Your task to perform on an android device: check google app version Image 0: 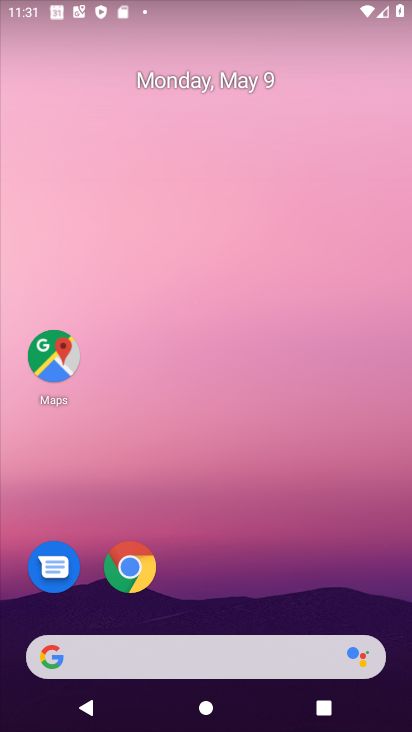
Step 0: drag from (392, 646) to (295, 104)
Your task to perform on an android device: check google app version Image 1: 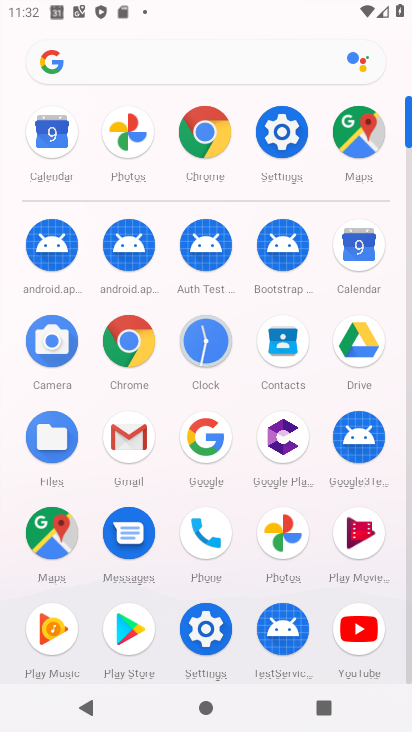
Step 1: click (209, 456)
Your task to perform on an android device: check google app version Image 2: 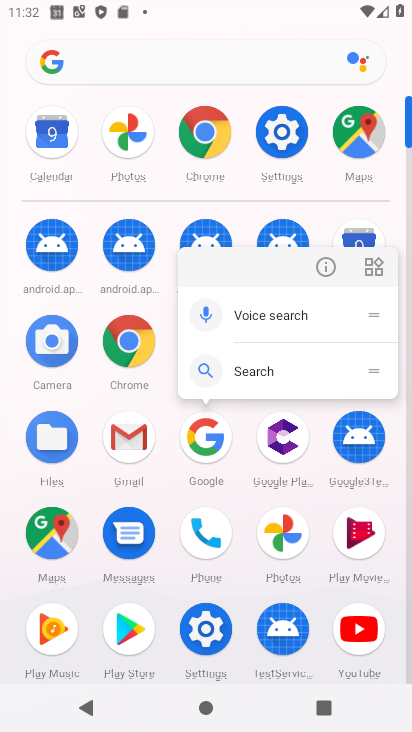
Step 2: click (319, 267)
Your task to perform on an android device: check google app version Image 3: 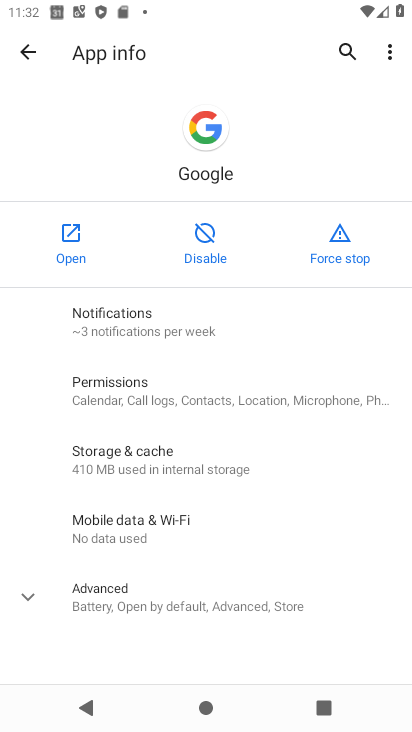
Step 3: click (39, 584)
Your task to perform on an android device: check google app version Image 4: 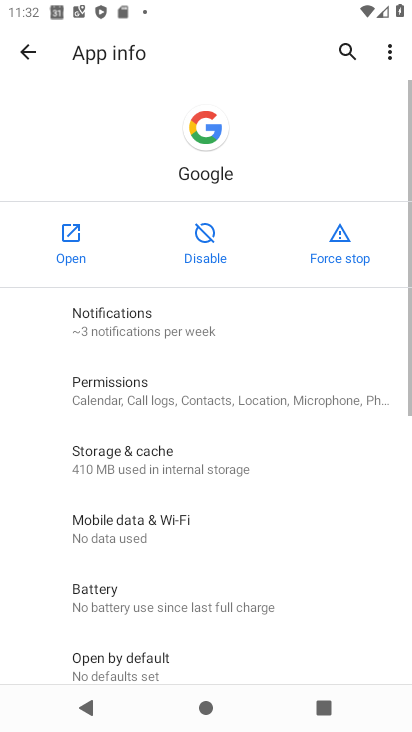
Step 4: task complete